Your task to perform on an android device: find photos in the google photos app Image 0: 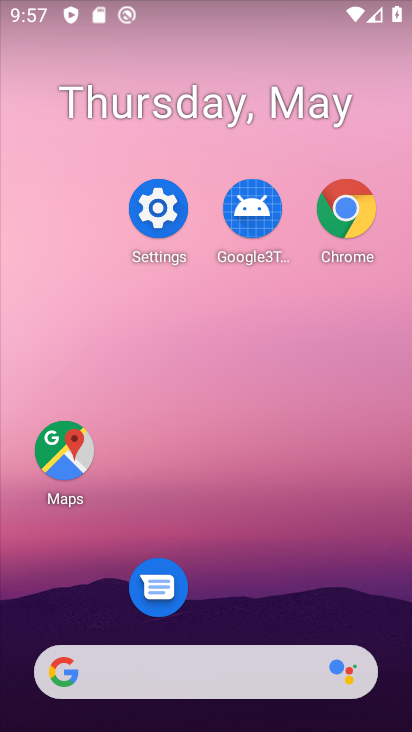
Step 0: drag from (253, 577) to (192, 10)
Your task to perform on an android device: find photos in the google photos app Image 1: 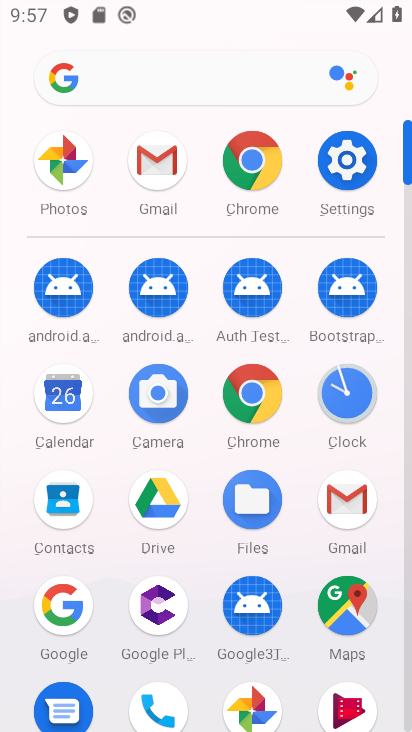
Step 1: click (267, 699)
Your task to perform on an android device: find photos in the google photos app Image 2: 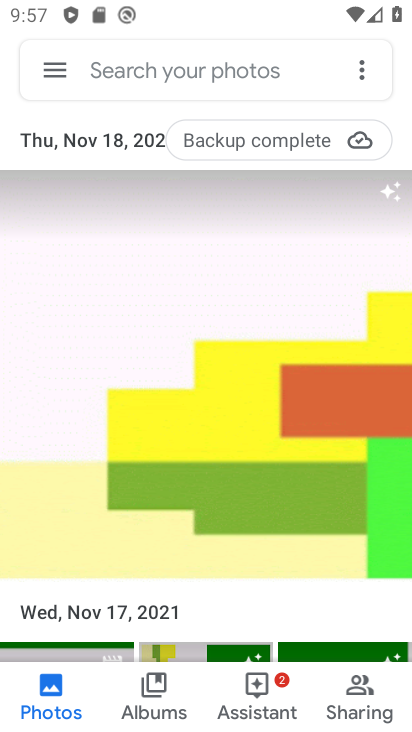
Step 2: task complete